Your task to perform on an android device: open app "Google Photos" Image 0: 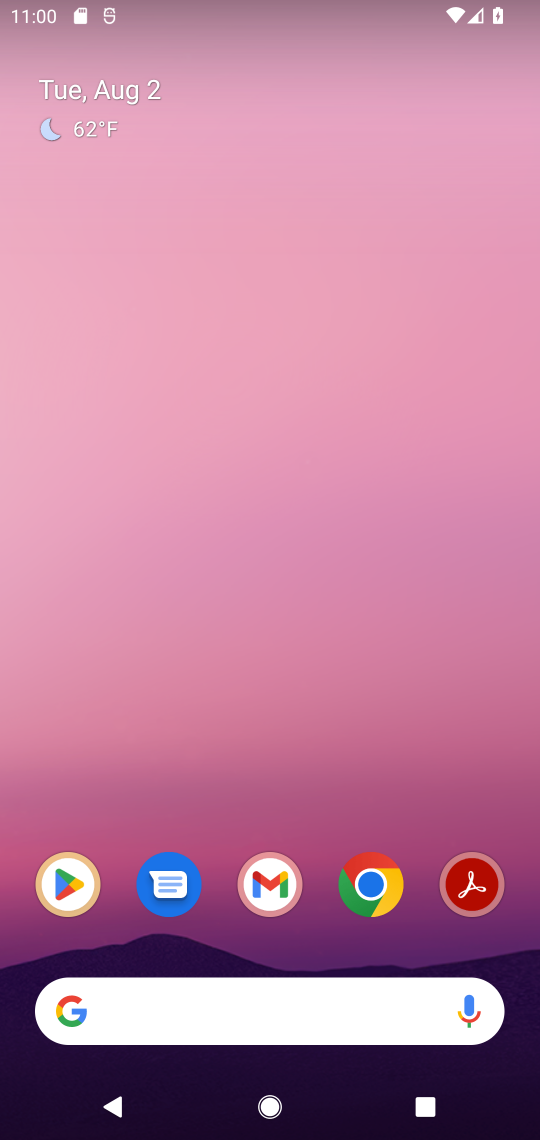
Step 0: click (86, 898)
Your task to perform on an android device: open app "Google Photos" Image 1: 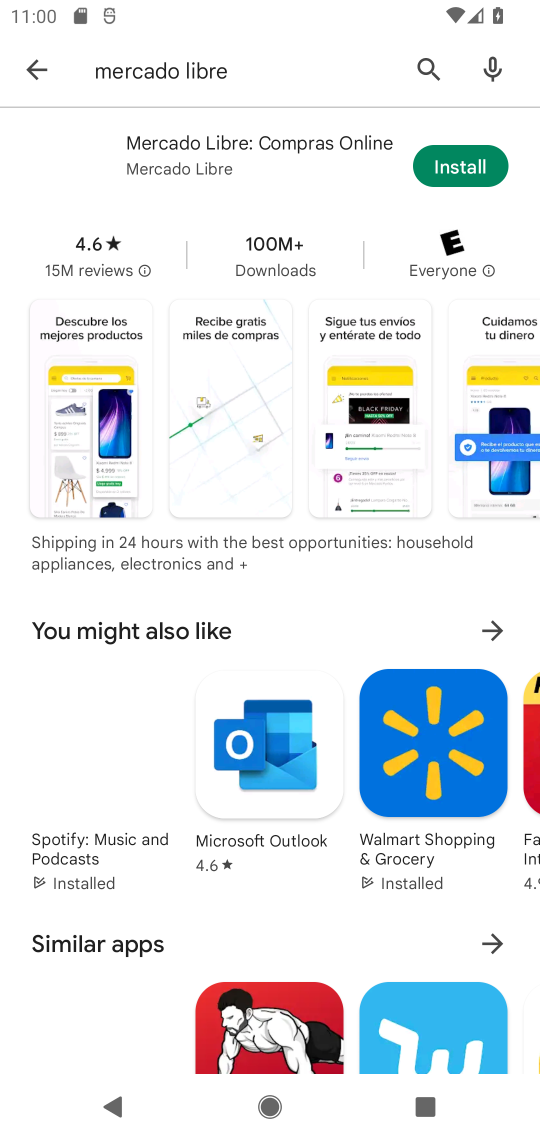
Step 1: click (254, 75)
Your task to perform on an android device: open app "Google Photos" Image 2: 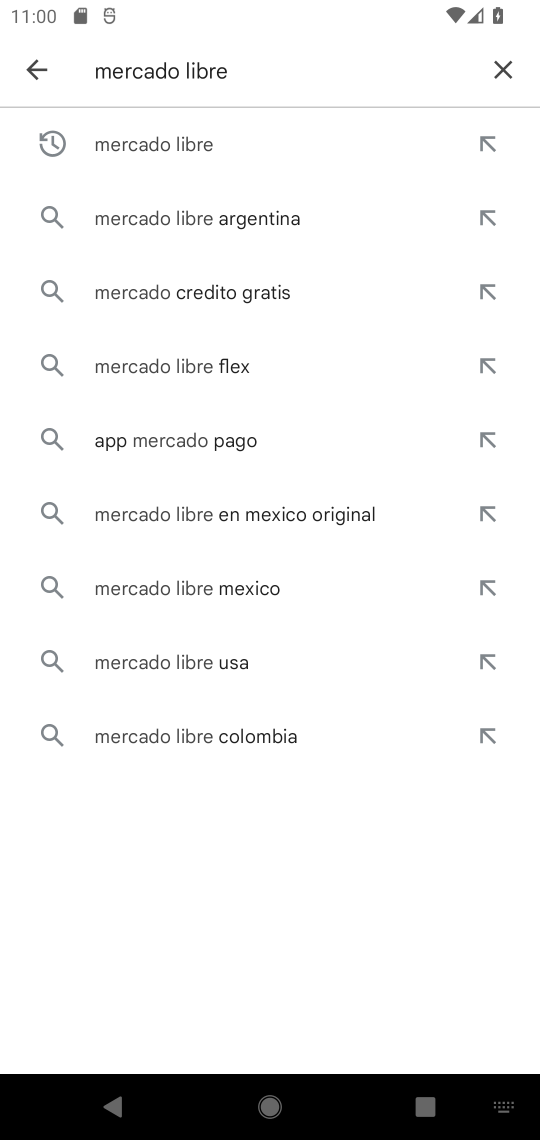
Step 2: click (501, 50)
Your task to perform on an android device: open app "Google Photos" Image 3: 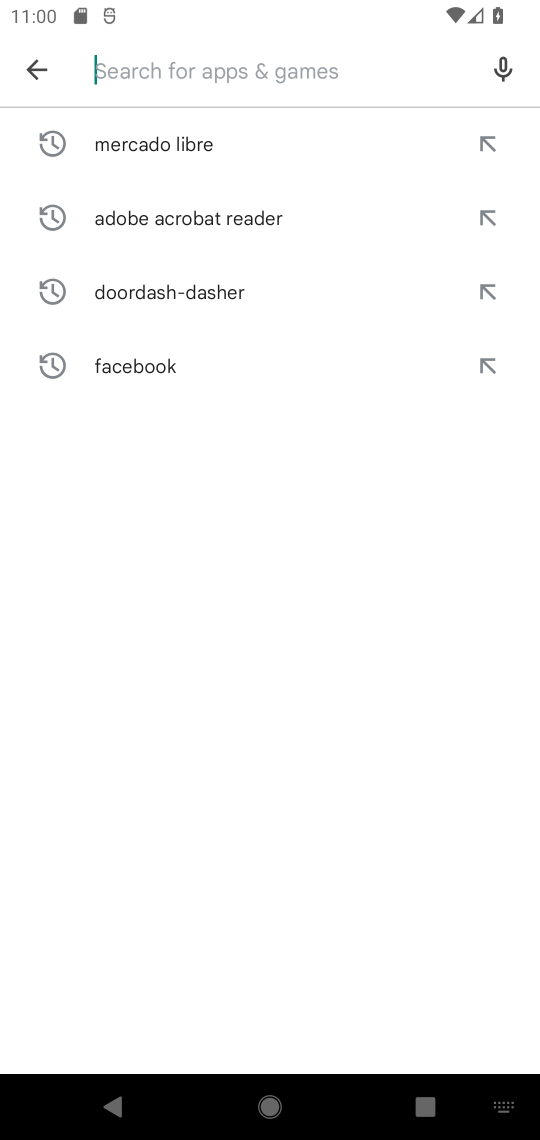
Step 3: type "google photos"
Your task to perform on an android device: open app "Google Photos" Image 4: 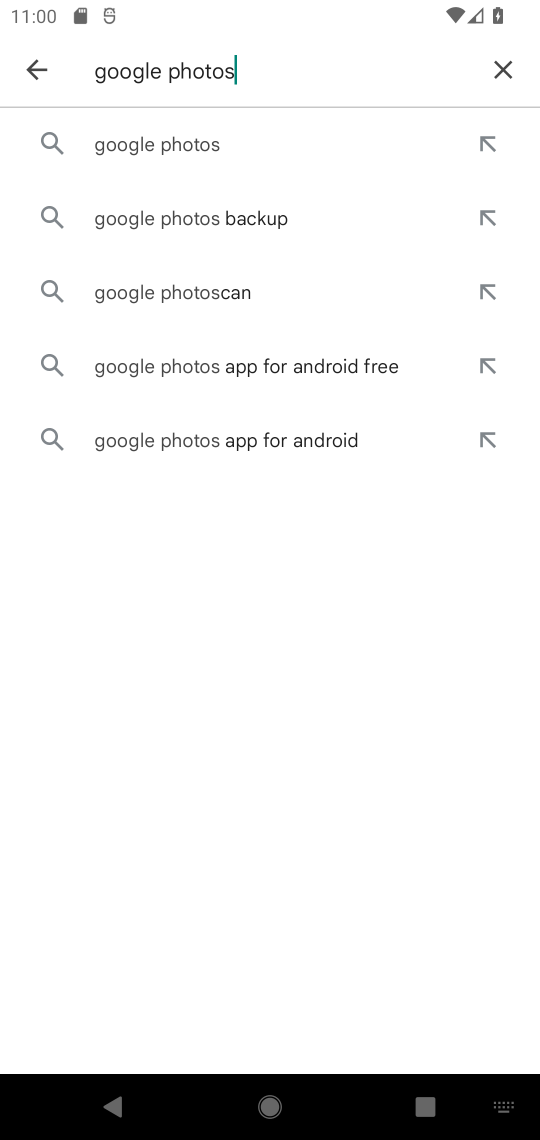
Step 4: click (180, 149)
Your task to perform on an android device: open app "Google Photos" Image 5: 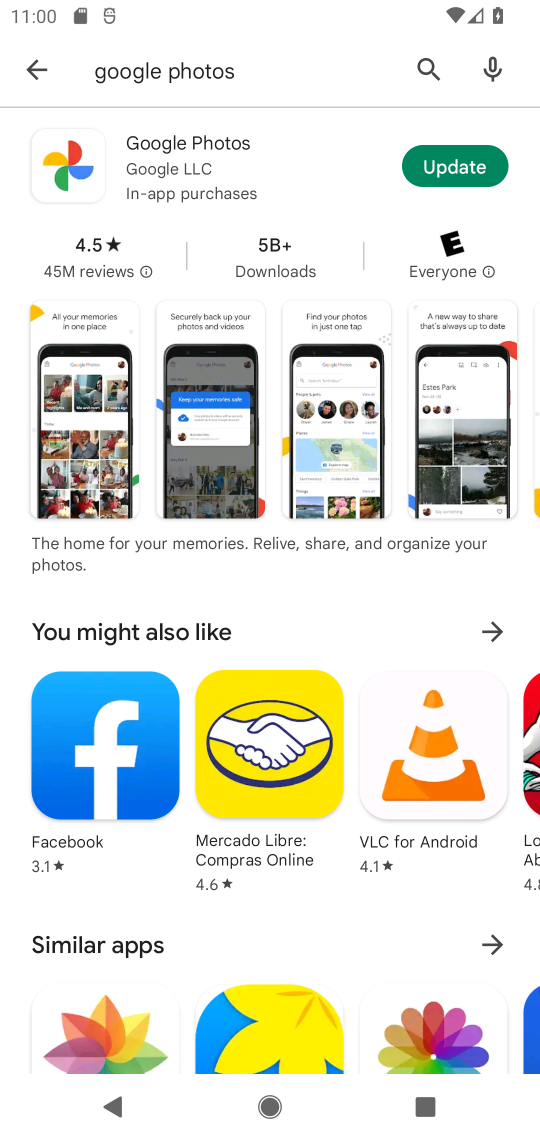
Step 5: click (201, 148)
Your task to perform on an android device: open app "Google Photos" Image 6: 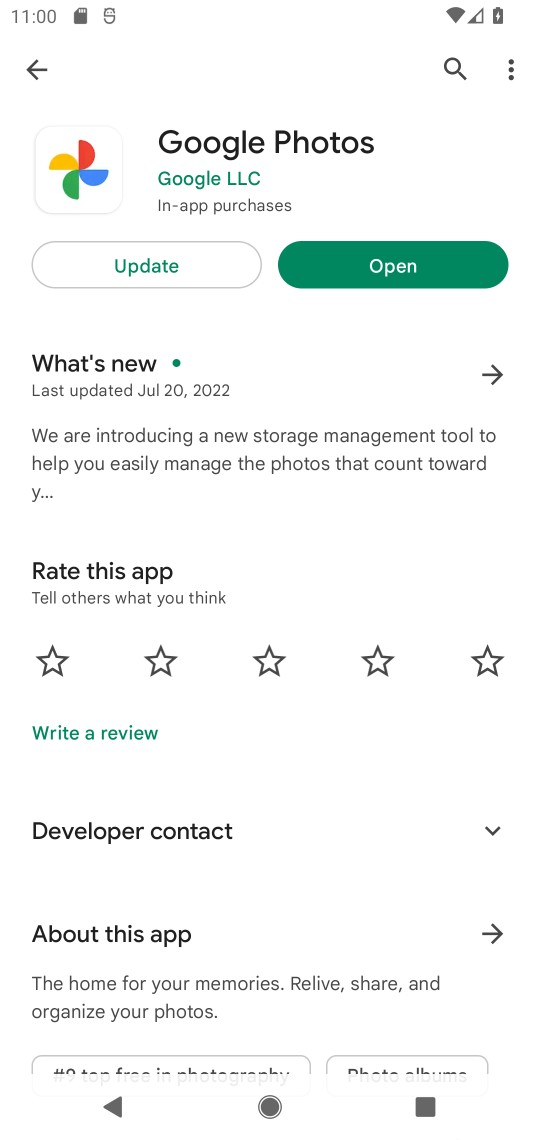
Step 6: click (422, 259)
Your task to perform on an android device: open app "Google Photos" Image 7: 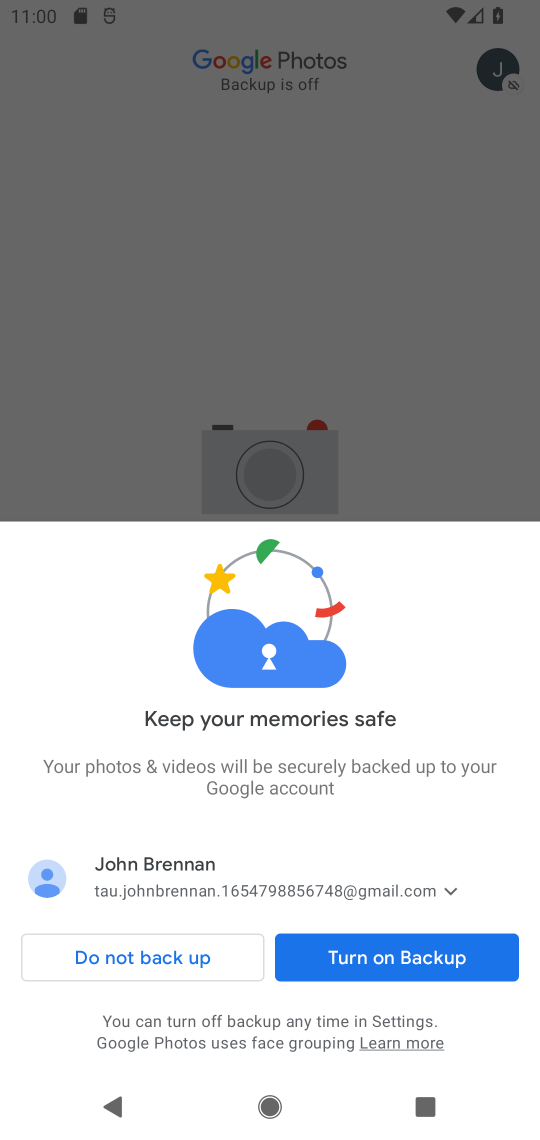
Step 7: click (206, 953)
Your task to perform on an android device: open app "Google Photos" Image 8: 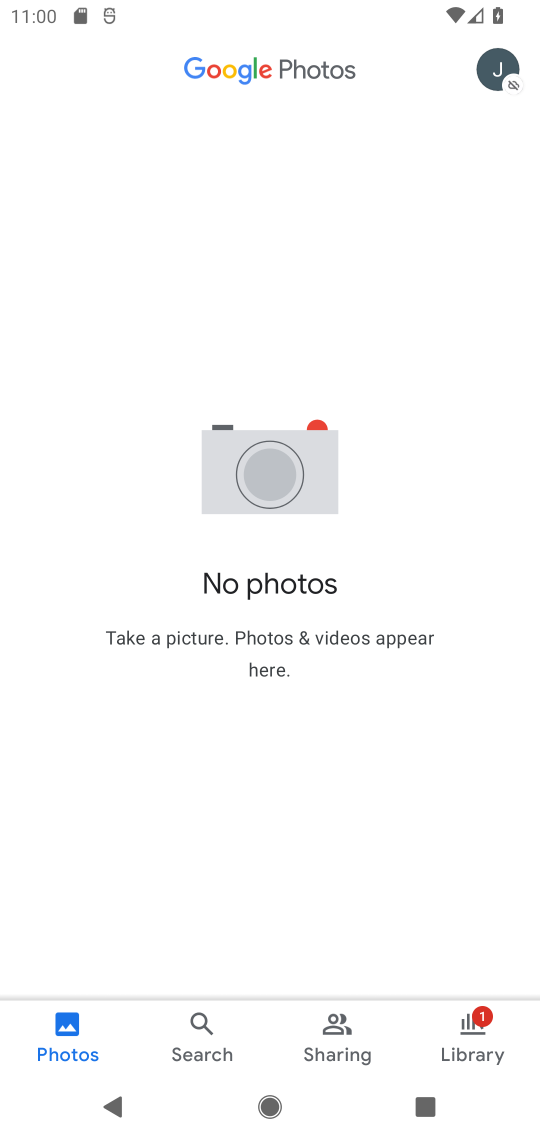
Step 8: task complete